Your task to perform on an android device: clear history in the chrome app Image 0: 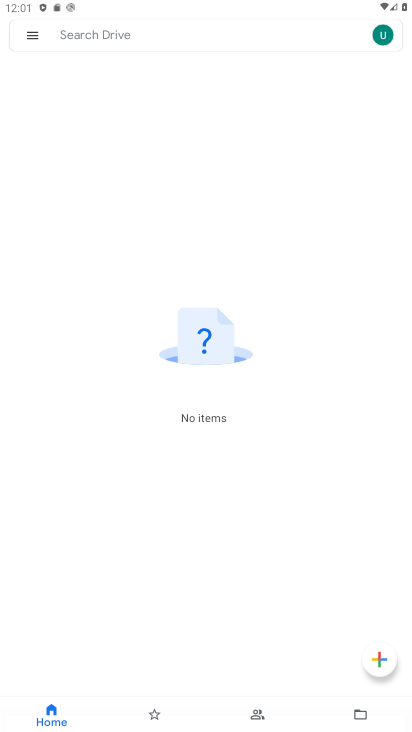
Step 0: press home button
Your task to perform on an android device: clear history in the chrome app Image 1: 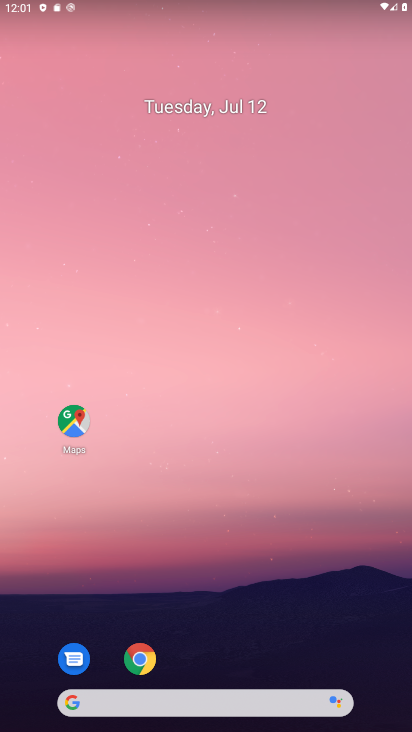
Step 1: click (146, 654)
Your task to perform on an android device: clear history in the chrome app Image 2: 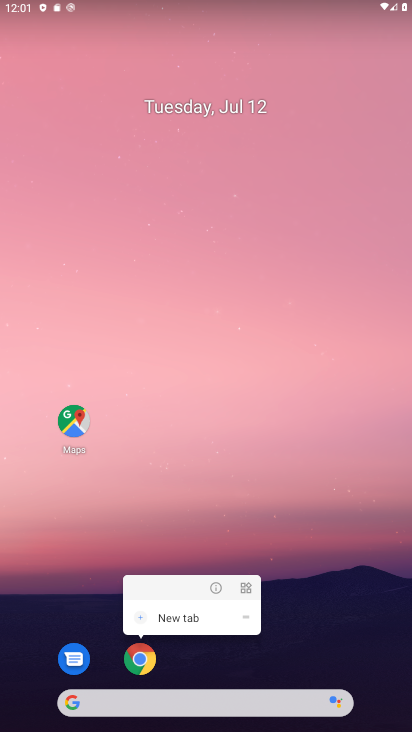
Step 2: click (146, 655)
Your task to perform on an android device: clear history in the chrome app Image 3: 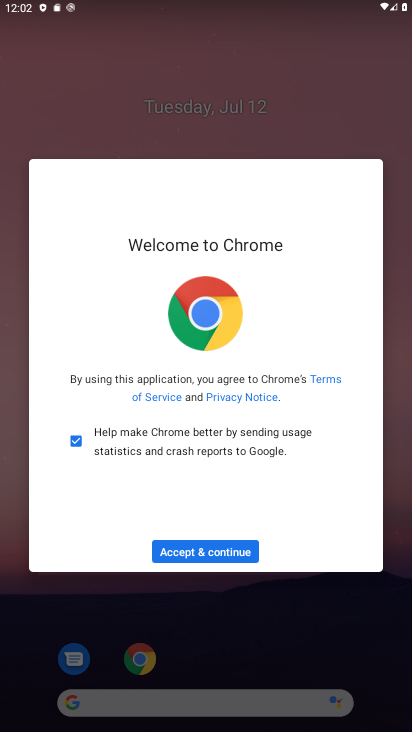
Step 3: click (218, 546)
Your task to perform on an android device: clear history in the chrome app Image 4: 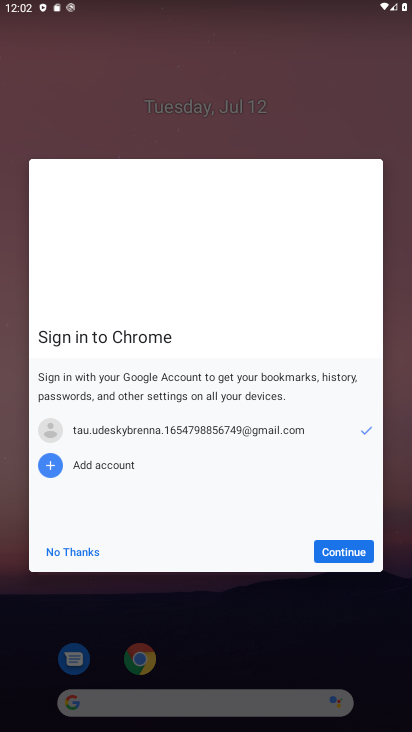
Step 4: click (322, 551)
Your task to perform on an android device: clear history in the chrome app Image 5: 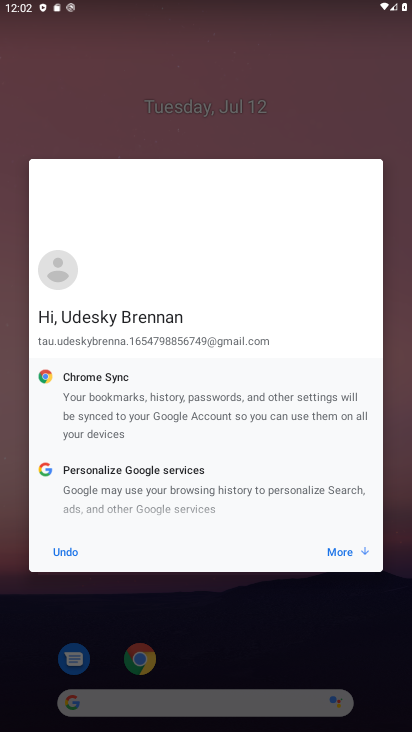
Step 5: click (321, 551)
Your task to perform on an android device: clear history in the chrome app Image 6: 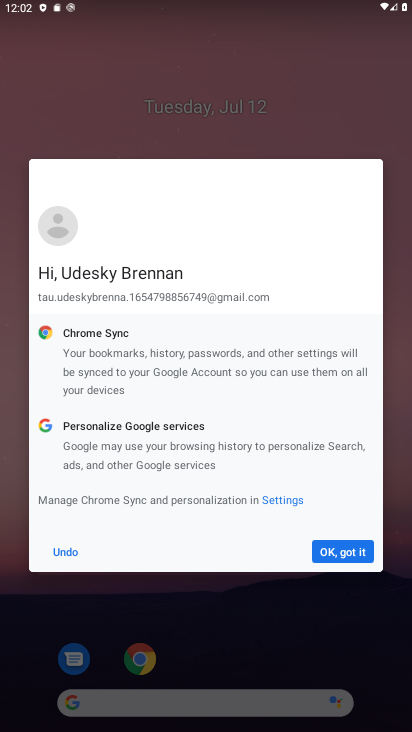
Step 6: click (336, 549)
Your task to perform on an android device: clear history in the chrome app Image 7: 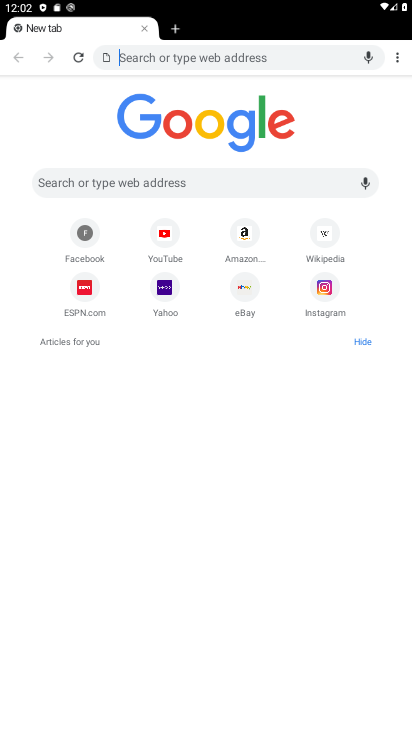
Step 7: click (402, 63)
Your task to perform on an android device: clear history in the chrome app Image 8: 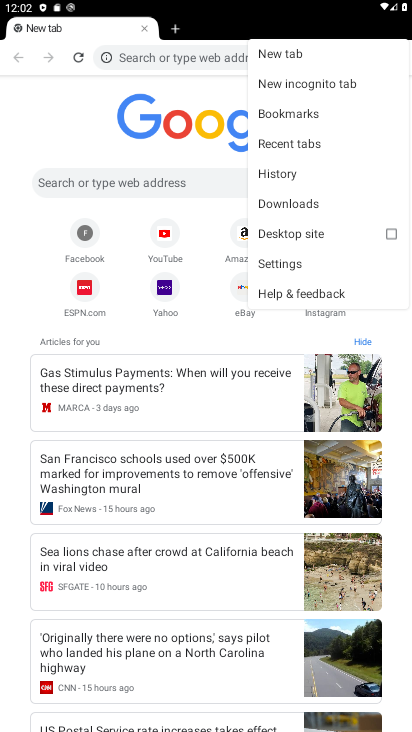
Step 8: click (290, 165)
Your task to perform on an android device: clear history in the chrome app Image 9: 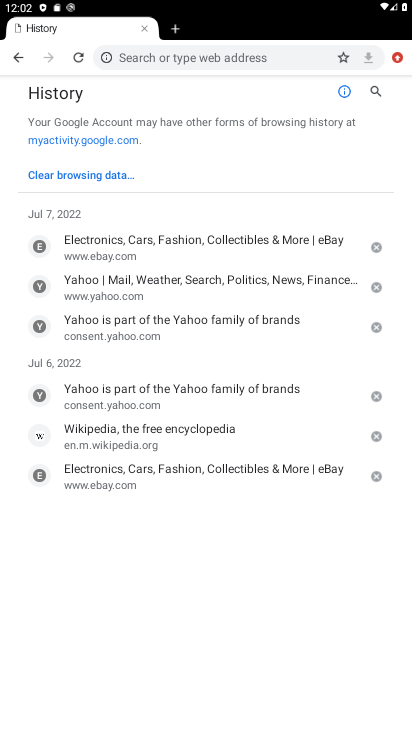
Step 9: click (66, 177)
Your task to perform on an android device: clear history in the chrome app Image 10: 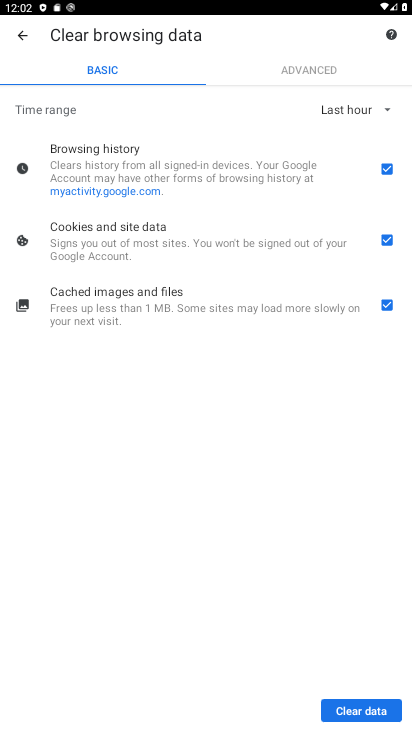
Step 10: click (327, 107)
Your task to perform on an android device: clear history in the chrome app Image 11: 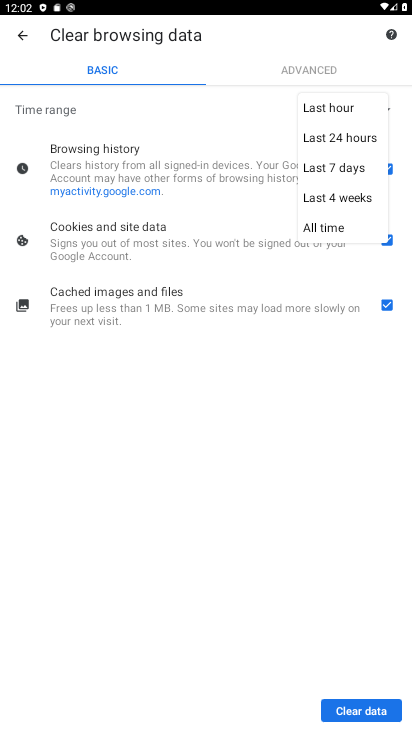
Step 11: click (324, 219)
Your task to perform on an android device: clear history in the chrome app Image 12: 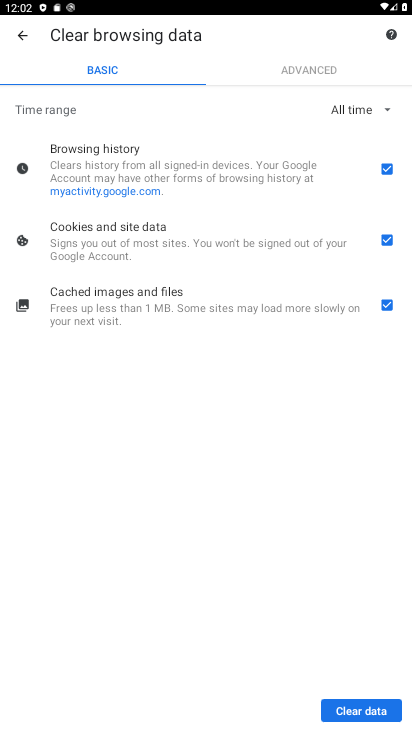
Step 12: click (345, 707)
Your task to perform on an android device: clear history in the chrome app Image 13: 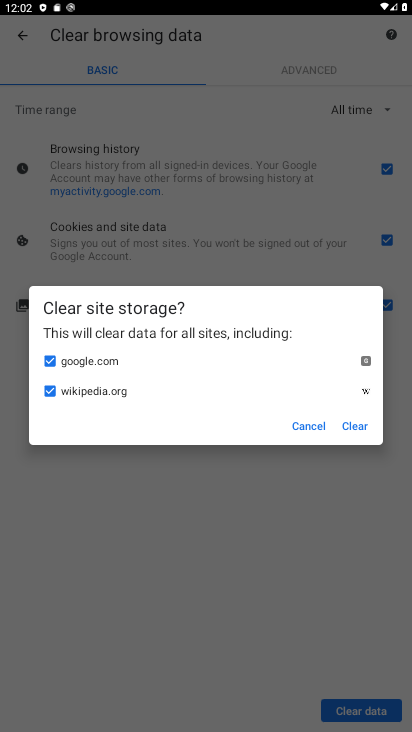
Step 13: click (360, 424)
Your task to perform on an android device: clear history in the chrome app Image 14: 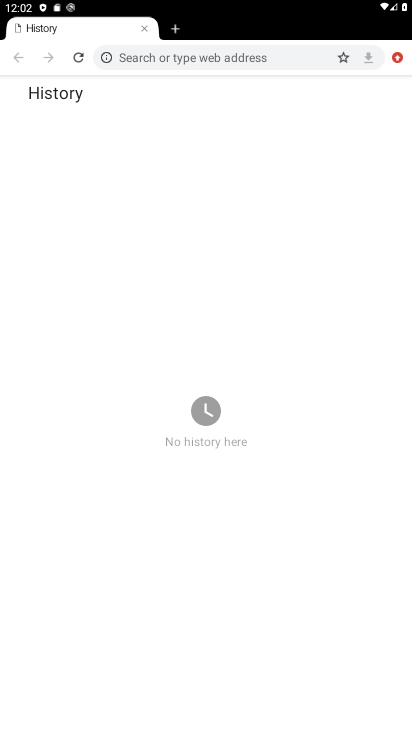
Step 14: task complete